Your task to perform on an android device: Add "macbook pro" to the cart on costco.com, then select checkout. Image 0: 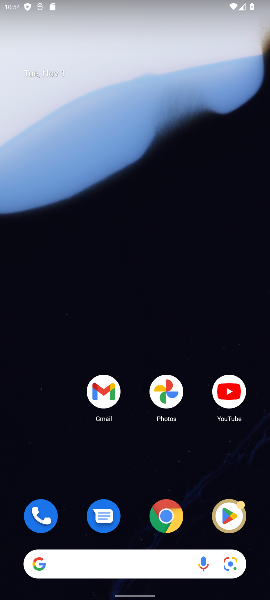
Step 0: click (165, 519)
Your task to perform on an android device: Add "macbook pro" to the cart on costco.com, then select checkout. Image 1: 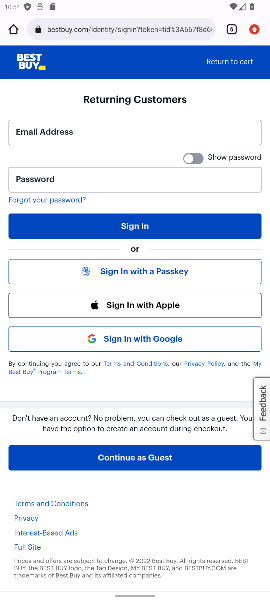
Step 1: click (228, 28)
Your task to perform on an android device: Add "macbook pro" to the cart on costco.com, then select checkout. Image 2: 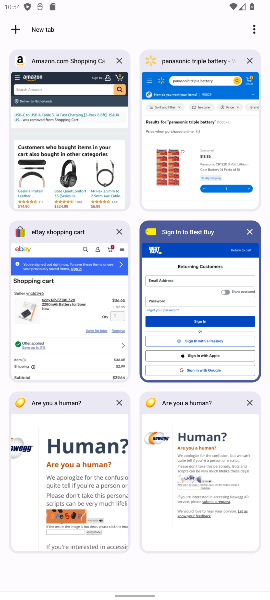
Step 2: click (14, 27)
Your task to perform on an android device: Add "macbook pro" to the cart on costco.com, then select checkout. Image 3: 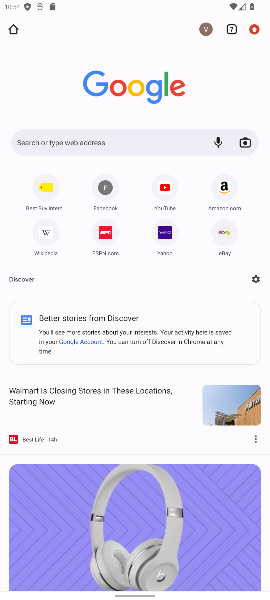
Step 3: click (127, 138)
Your task to perform on an android device: Add "macbook pro" to the cart on costco.com, then select checkout. Image 4: 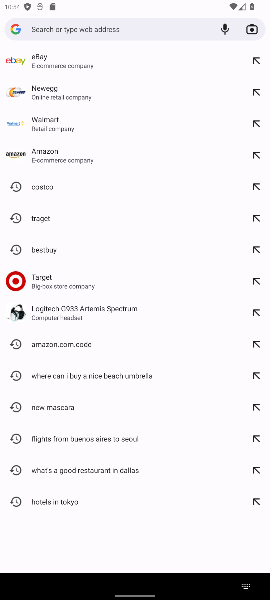
Step 4: type "costco"
Your task to perform on an android device: Add "macbook pro" to the cart on costco.com, then select checkout. Image 5: 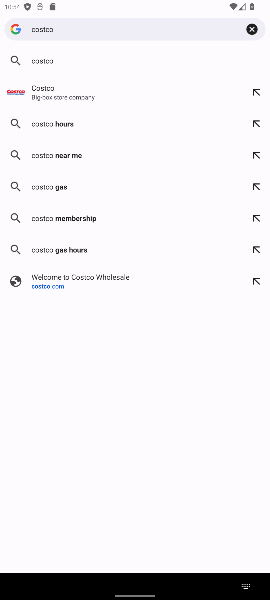
Step 5: click (74, 92)
Your task to perform on an android device: Add "macbook pro" to the cart on costco.com, then select checkout. Image 6: 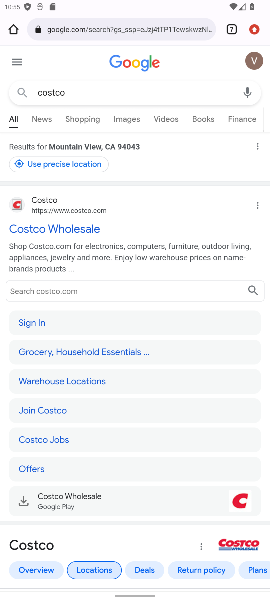
Step 6: click (96, 284)
Your task to perform on an android device: Add "macbook pro" to the cart on costco.com, then select checkout. Image 7: 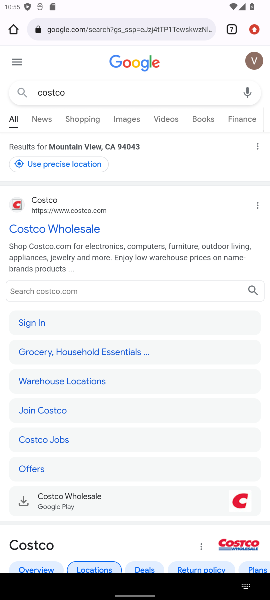
Step 7: type "macbook pro"
Your task to perform on an android device: Add "macbook pro" to the cart on costco.com, then select checkout. Image 8: 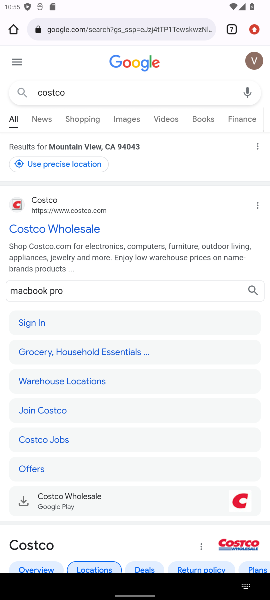
Step 8: click (249, 293)
Your task to perform on an android device: Add "macbook pro" to the cart on costco.com, then select checkout. Image 9: 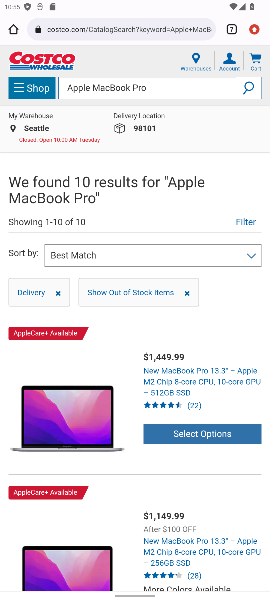
Step 9: click (214, 379)
Your task to perform on an android device: Add "macbook pro" to the cart on costco.com, then select checkout. Image 10: 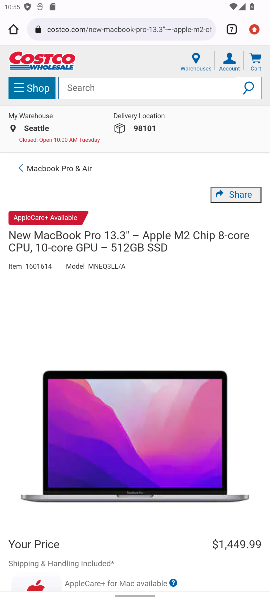
Step 10: drag from (166, 525) to (237, 38)
Your task to perform on an android device: Add "macbook pro" to the cart on costco.com, then select checkout. Image 11: 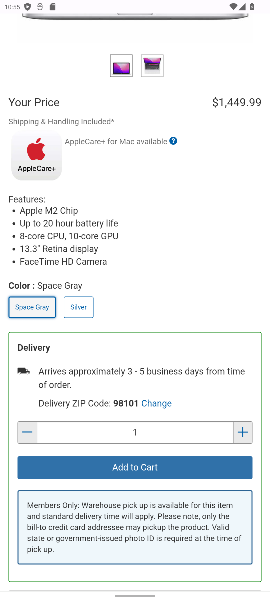
Step 11: click (139, 469)
Your task to perform on an android device: Add "macbook pro" to the cart on costco.com, then select checkout. Image 12: 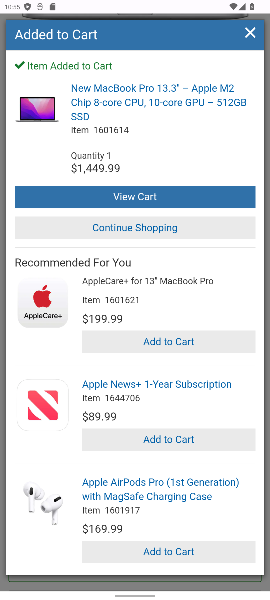
Step 12: click (163, 198)
Your task to perform on an android device: Add "macbook pro" to the cart on costco.com, then select checkout. Image 13: 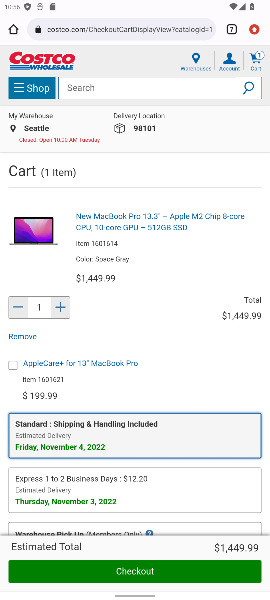
Step 13: click (138, 574)
Your task to perform on an android device: Add "macbook pro" to the cart on costco.com, then select checkout. Image 14: 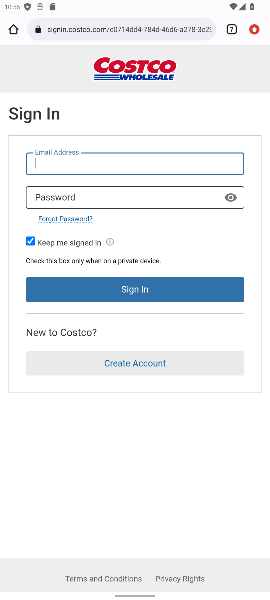
Step 14: task complete